Your task to perform on an android device: Go to accessibility settings Image 0: 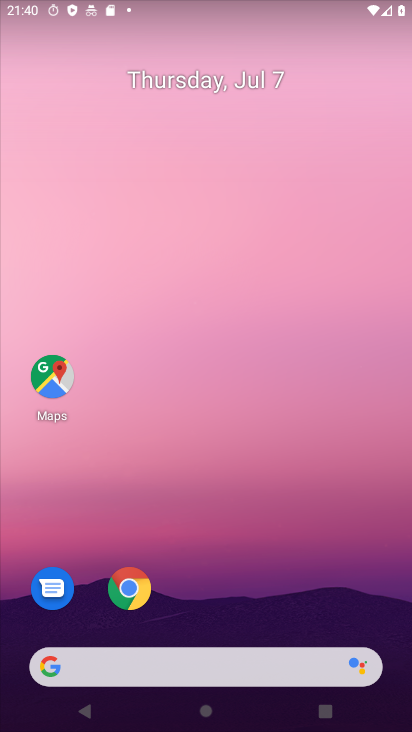
Step 0: drag from (253, 687) to (165, 183)
Your task to perform on an android device: Go to accessibility settings Image 1: 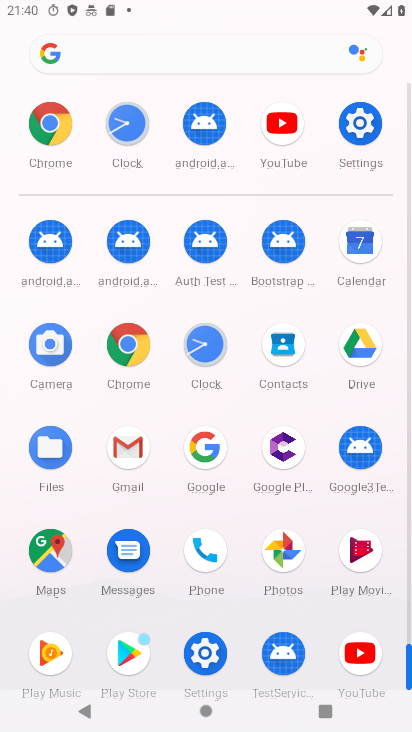
Step 1: click (372, 124)
Your task to perform on an android device: Go to accessibility settings Image 2: 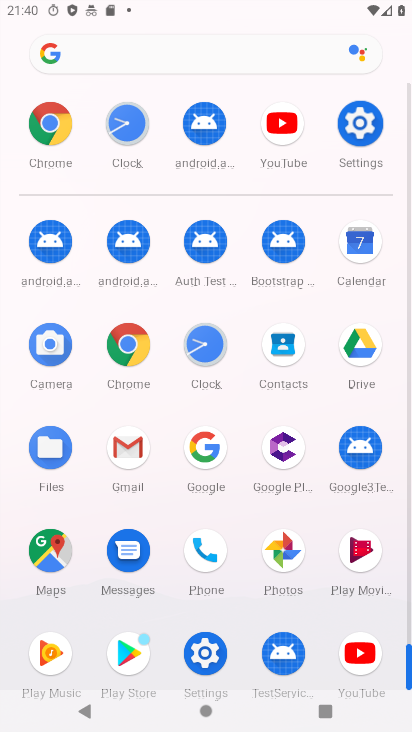
Step 2: click (372, 125)
Your task to perform on an android device: Go to accessibility settings Image 3: 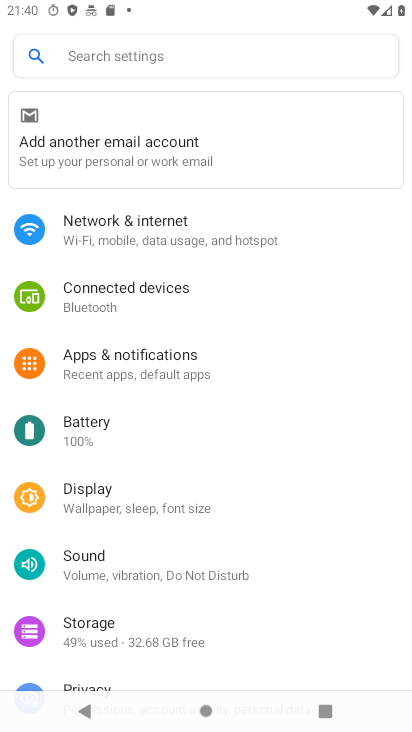
Step 3: drag from (134, 610) to (91, 346)
Your task to perform on an android device: Go to accessibility settings Image 4: 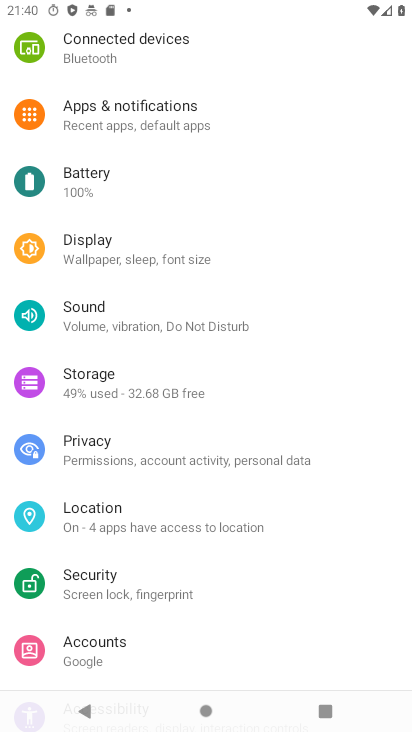
Step 4: drag from (109, 647) to (96, 253)
Your task to perform on an android device: Go to accessibility settings Image 5: 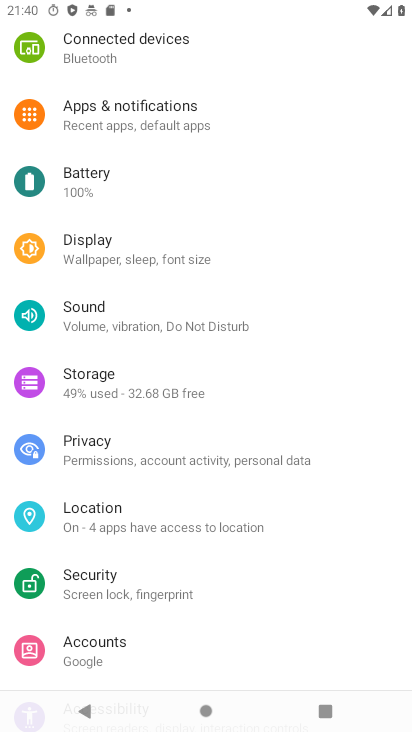
Step 5: drag from (121, 401) to (127, 111)
Your task to perform on an android device: Go to accessibility settings Image 6: 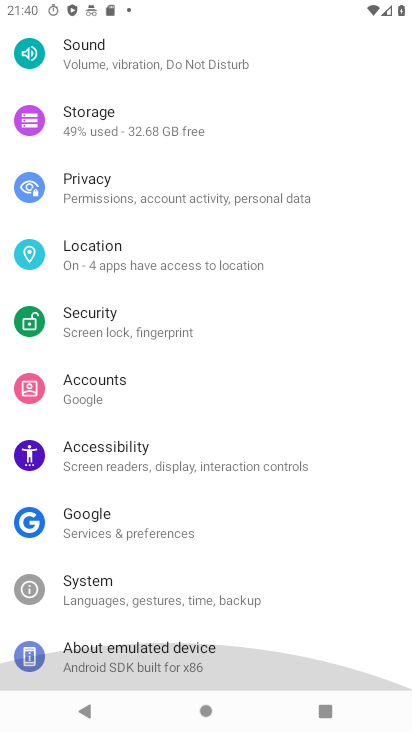
Step 6: drag from (180, 608) to (125, 109)
Your task to perform on an android device: Go to accessibility settings Image 7: 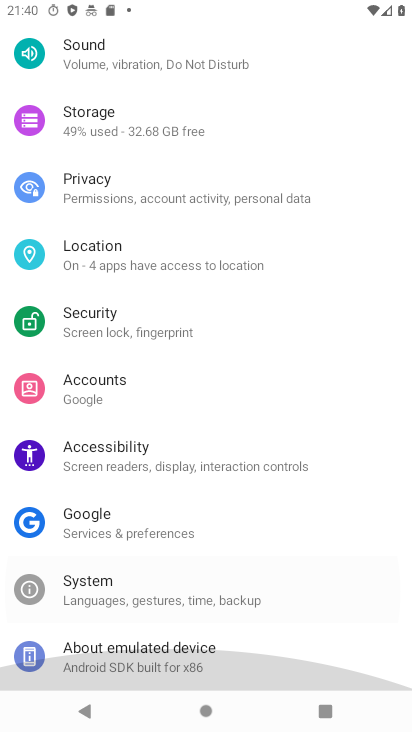
Step 7: drag from (135, 618) to (181, 296)
Your task to perform on an android device: Go to accessibility settings Image 8: 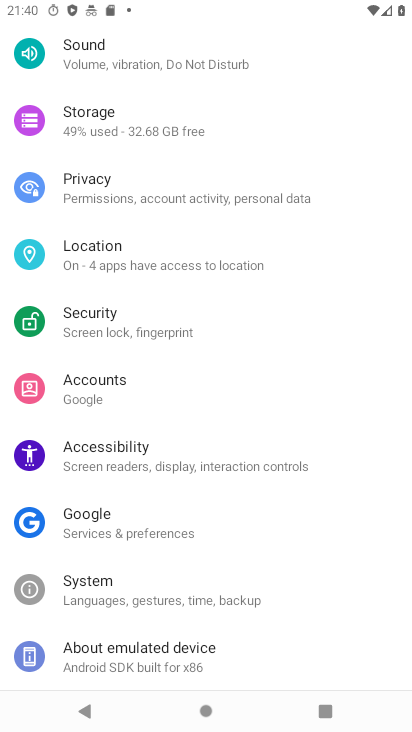
Step 8: click (105, 464)
Your task to perform on an android device: Go to accessibility settings Image 9: 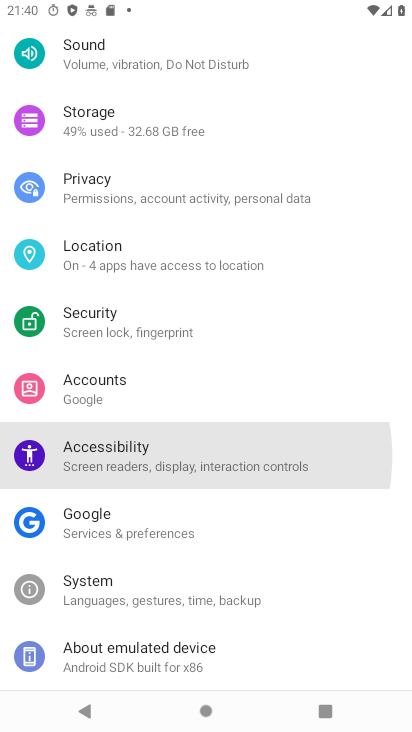
Step 9: click (105, 463)
Your task to perform on an android device: Go to accessibility settings Image 10: 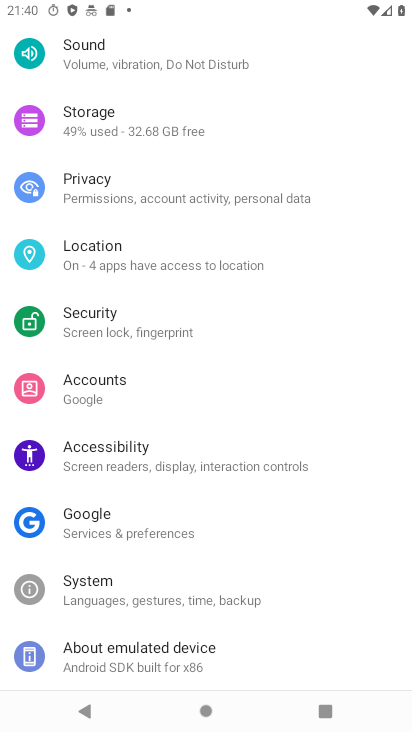
Step 10: click (104, 462)
Your task to perform on an android device: Go to accessibility settings Image 11: 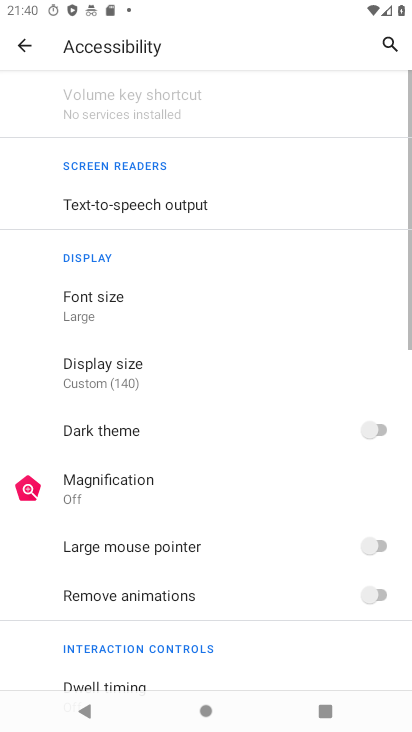
Step 11: click (104, 461)
Your task to perform on an android device: Go to accessibility settings Image 12: 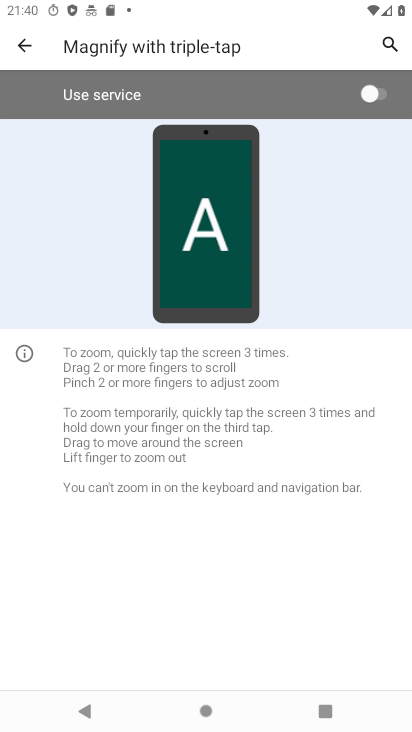
Step 12: task complete